Your task to perform on an android device: check out phone information Image 0: 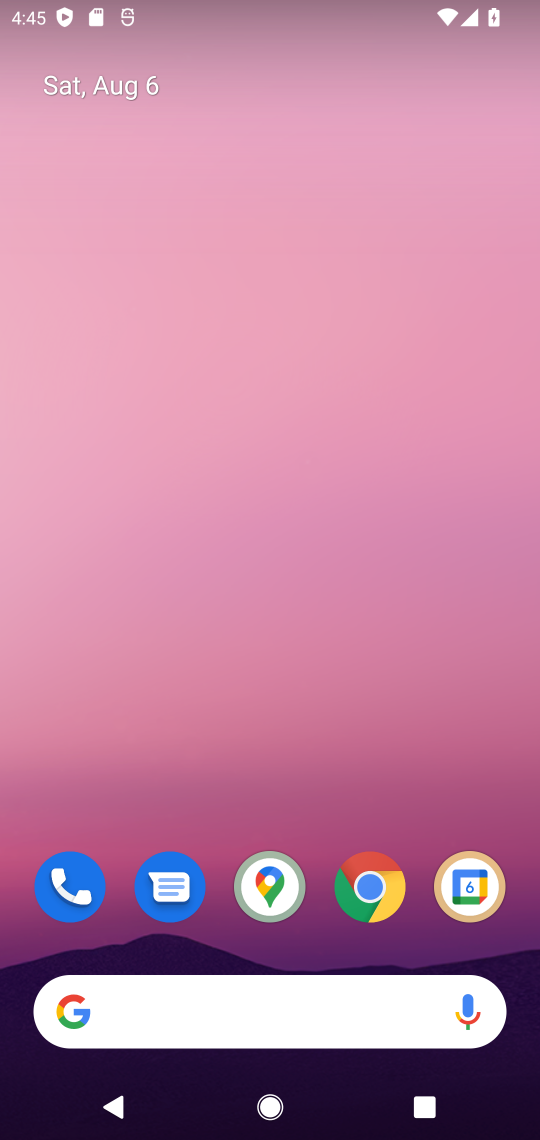
Step 0: drag from (346, 1010) to (33, 19)
Your task to perform on an android device: check out phone information Image 1: 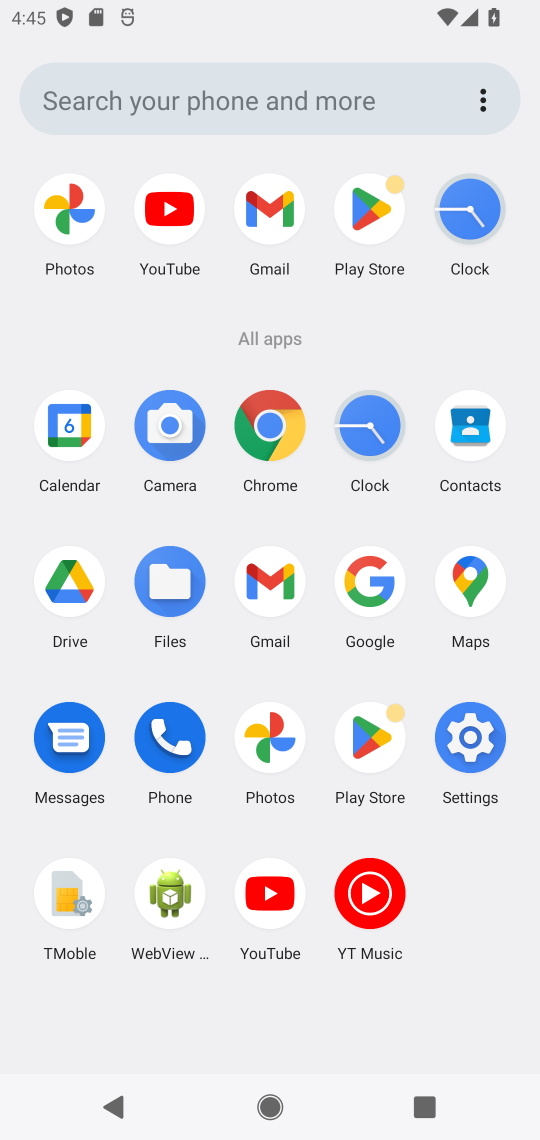
Step 1: click (455, 730)
Your task to perform on an android device: check out phone information Image 2: 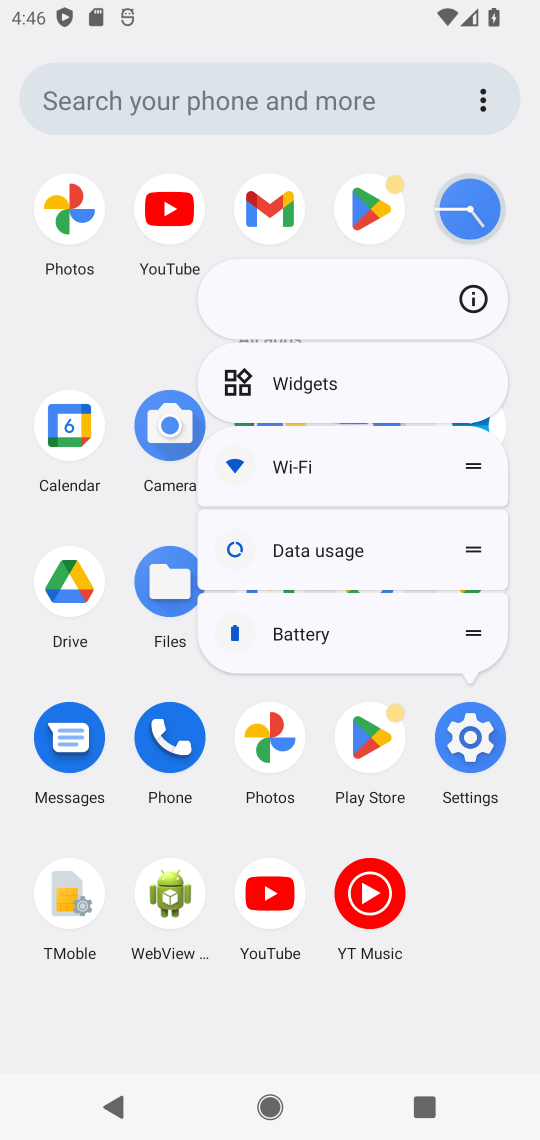
Step 2: click (456, 741)
Your task to perform on an android device: check out phone information Image 3: 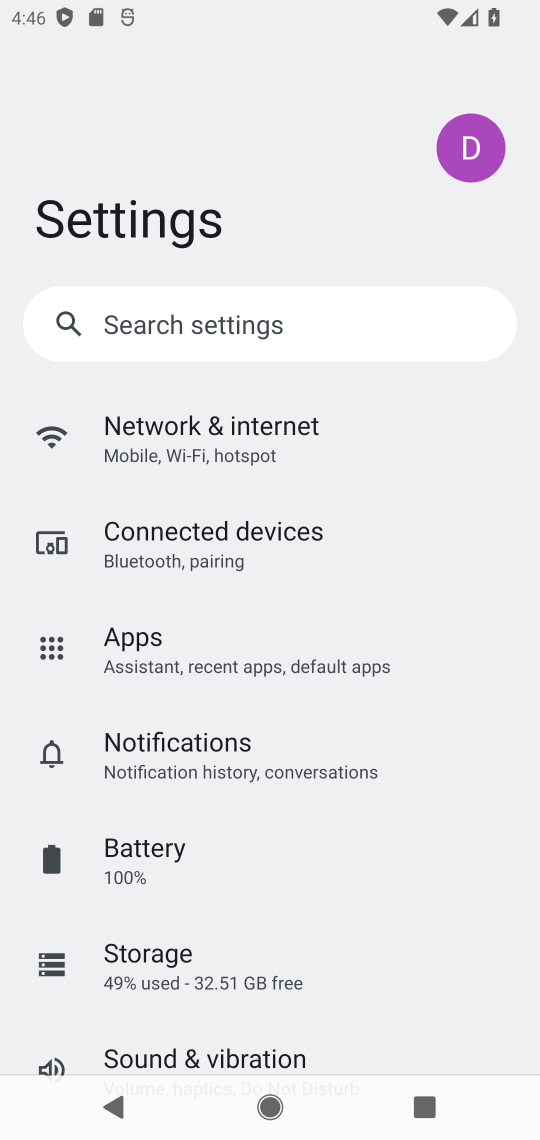
Step 3: drag from (277, 946) to (215, 16)
Your task to perform on an android device: check out phone information Image 4: 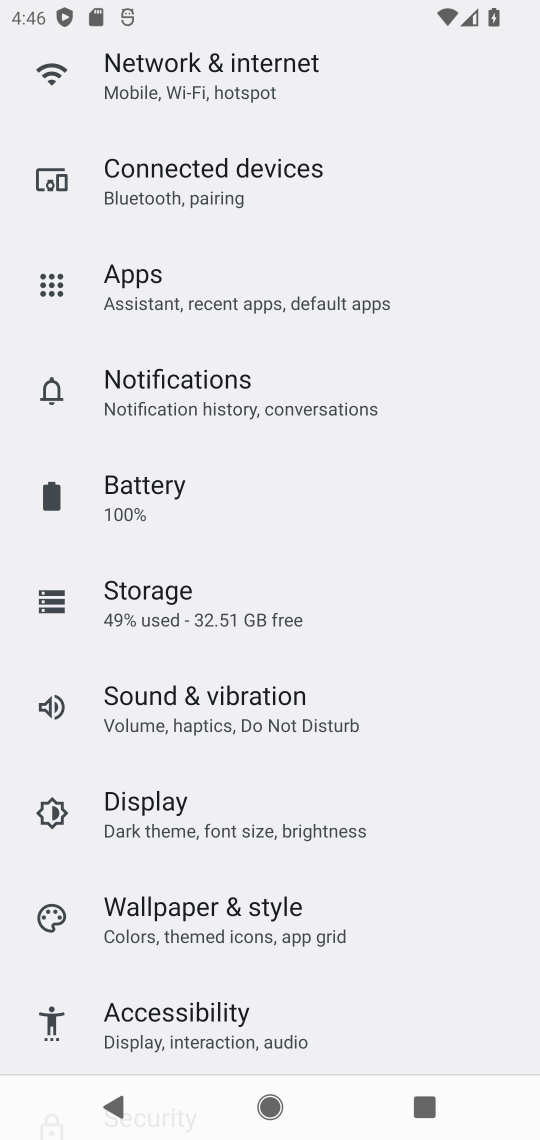
Step 4: drag from (232, 1037) to (233, 271)
Your task to perform on an android device: check out phone information Image 5: 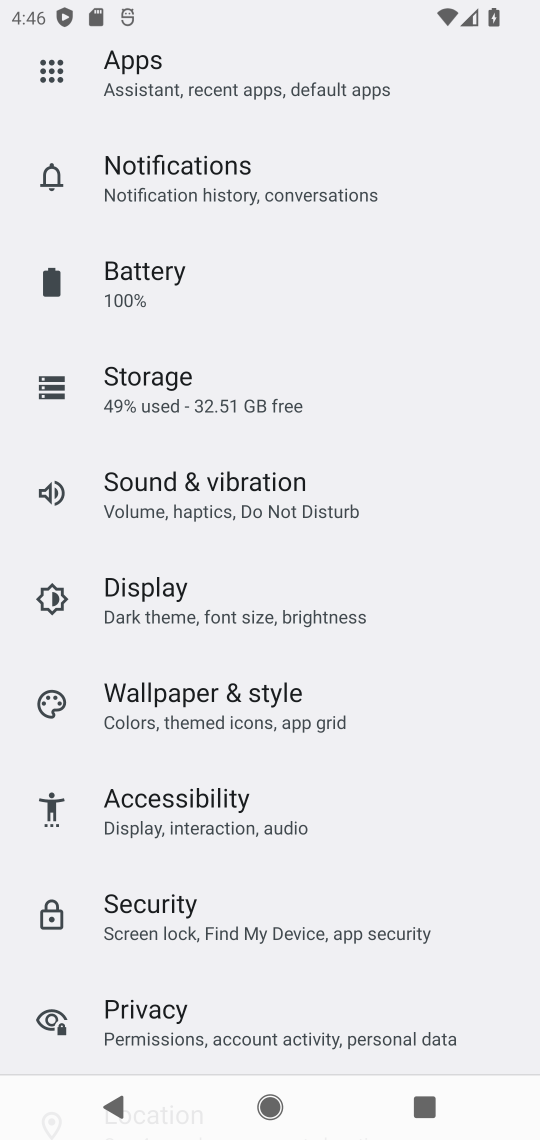
Step 5: drag from (329, 827) to (327, 156)
Your task to perform on an android device: check out phone information Image 6: 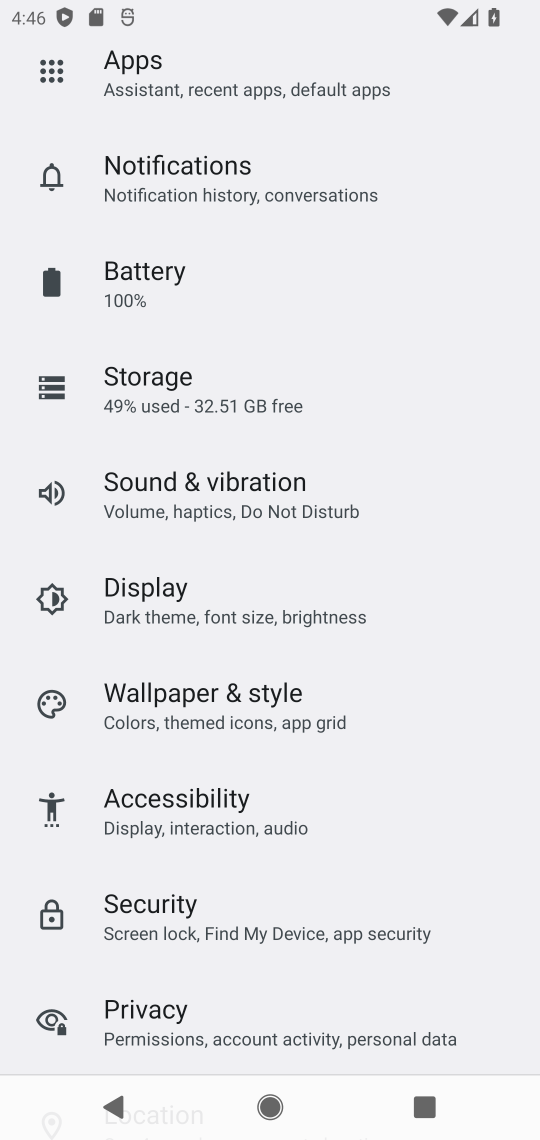
Step 6: drag from (293, 1036) to (292, 176)
Your task to perform on an android device: check out phone information Image 7: 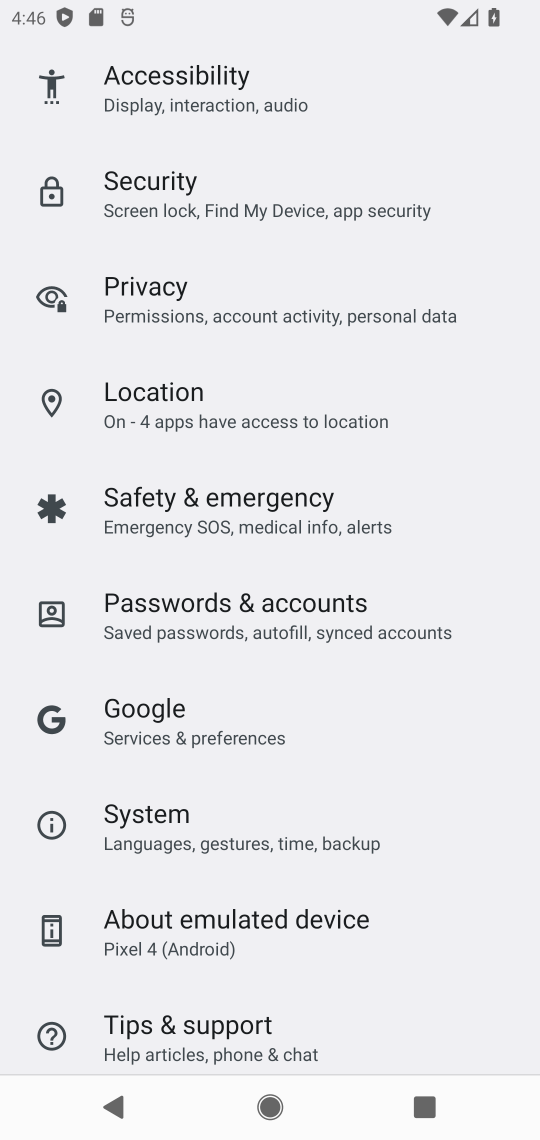
Step 7: drag from (315, 1029) to (302, 425)
Your task to perform on an android device: check out phone information Image 8: 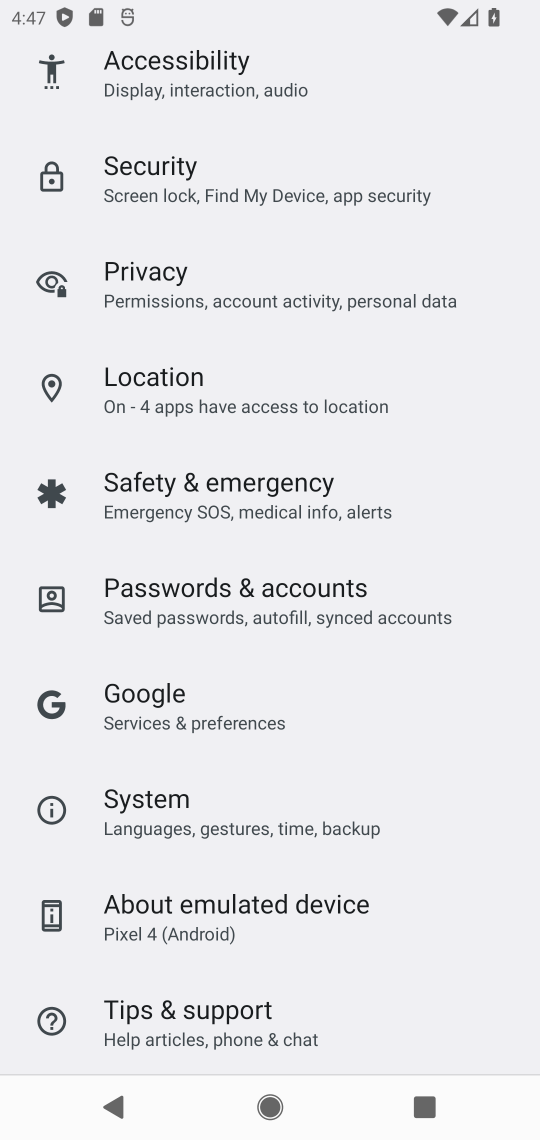
Step 8: click (291, 917)
Your task to perform on an android device: check out phone information Image 9: 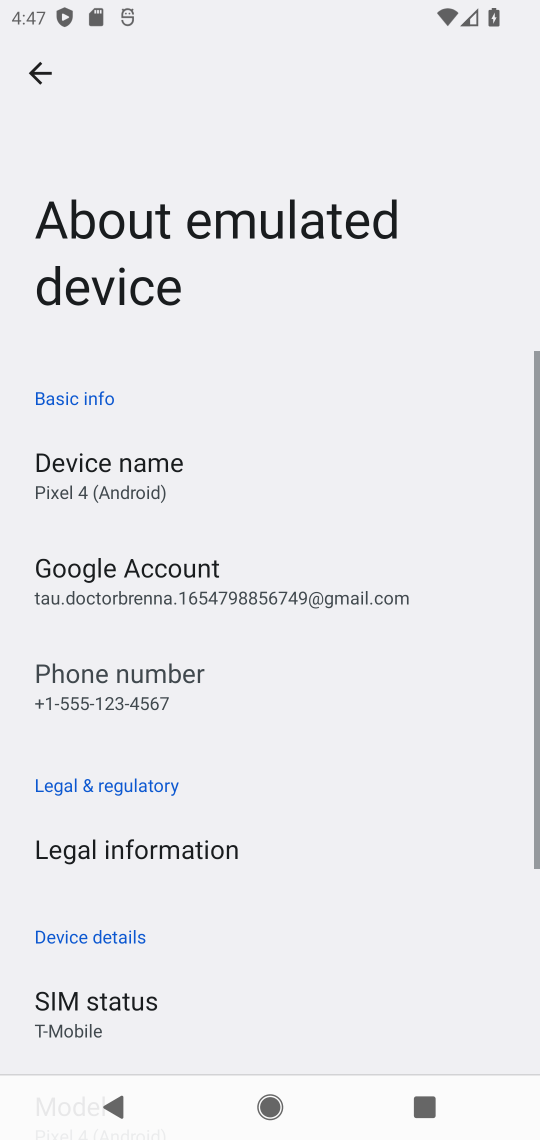
Step 9: task complete